Your task to perform on an android device: Go to display settings Image 0: 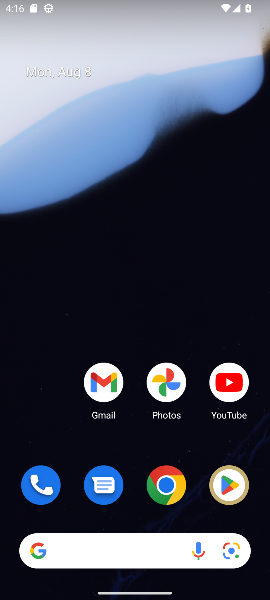
Step 0: drag from (187, 460) to (164, 115)
Your task to perform on an android device: Go to display settings Image 1: 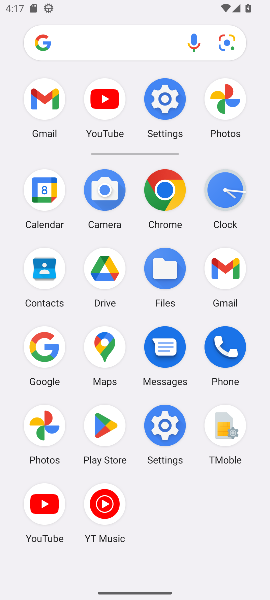
Step 1: click (169, 102)
Your task to perform on an android device: Go to display settings Image 2: 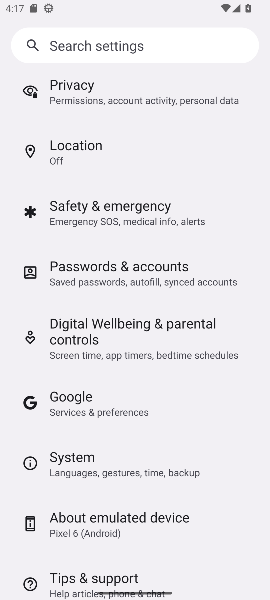
Step 2: drag from (80, 194) to (45, 520)
Your task to perform on an android device: Go to display settings Image 3: 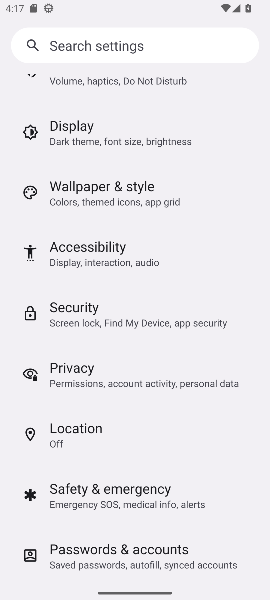
Step 3: click (78, 136)
Your task to perform on an android device: Go to display settings Image 4: 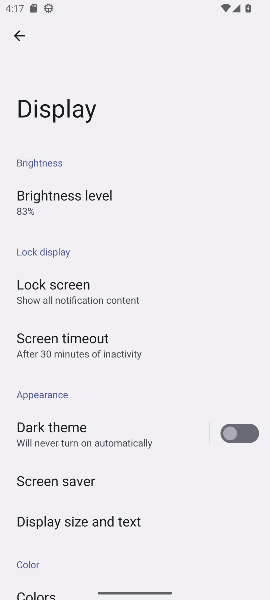
Step 4: drag from (141, 392) to (134, 95)
Your task to perform on an android device: Go to display settings Image 5: 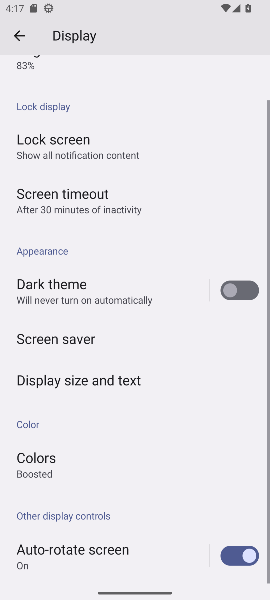
Step 5: drag from (129, 363) to (144, 165)
Your task to perform on an android device: Go to display settings Image 6: 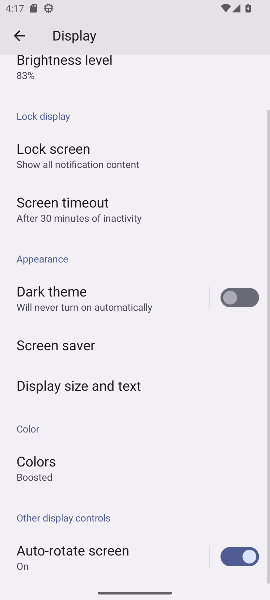
Step 6: click (164, 199)
Your task to perform on an android device: Go to display settings Image 7: 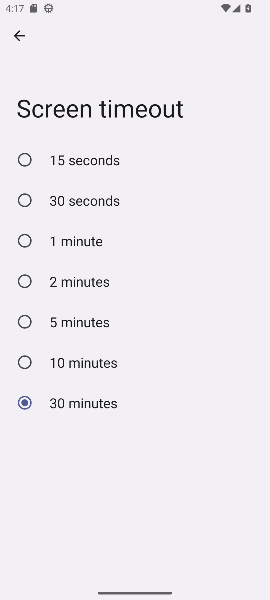
Step 7: task complete